Your task to perform on an android device: turn pop-ups off in chrome Image 0: 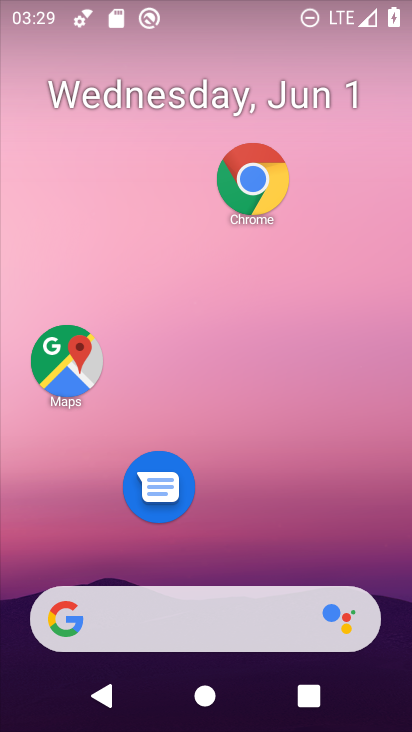
Step 0: drag from (238, 564) to (239, 204)
Your task to perform on an android device: turn pop-ups off in chrome Image 1: 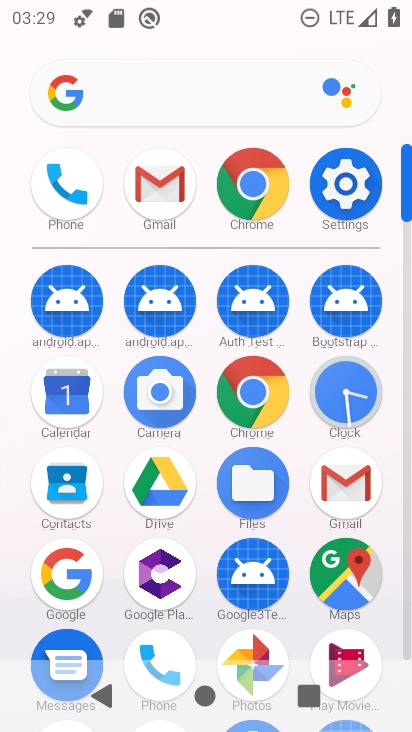
Step 1: click (245, 169)
Your task to perform on an android device: turn pop-ups off in chrome Image 2: 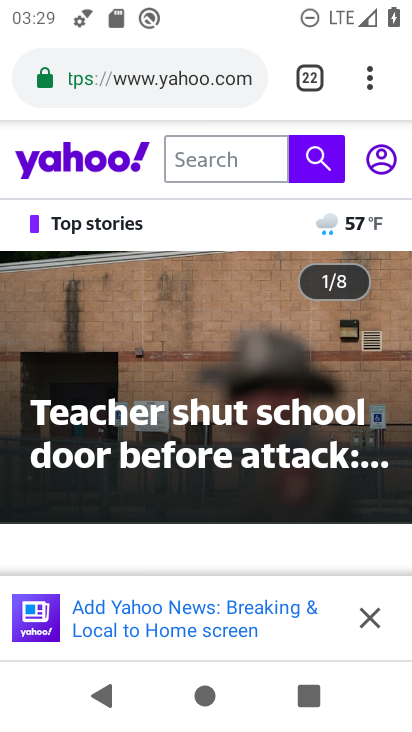
Step 2: click (376, 78)
Your task to perform on an android device: turn pop-ups off in chrome Image 3: 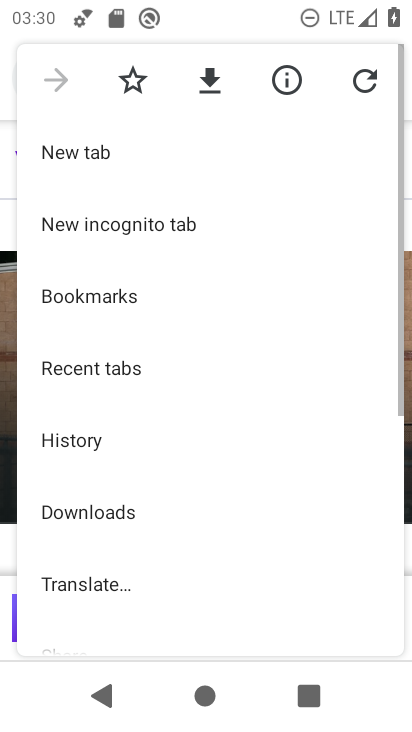
Step 3: drag from (182, 550) to (206, 207)
Your task to perform on an android device: turn pop-ups off in chrome Image 4: 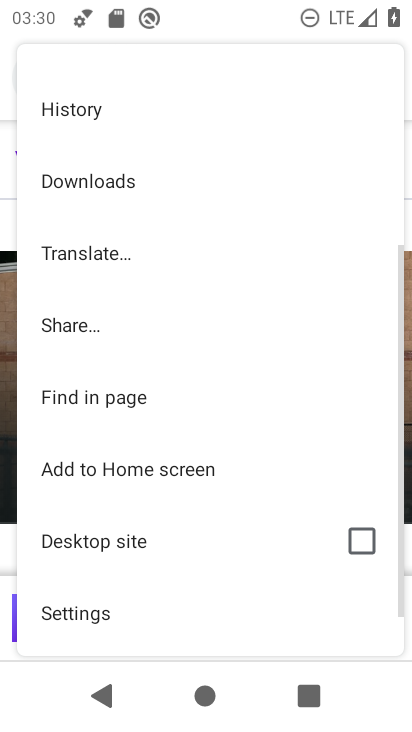
Step 4: drag from (148, 573) to (170, 310)
Your task to perform on an android device: turn pop-ups off in chrome Image 5: 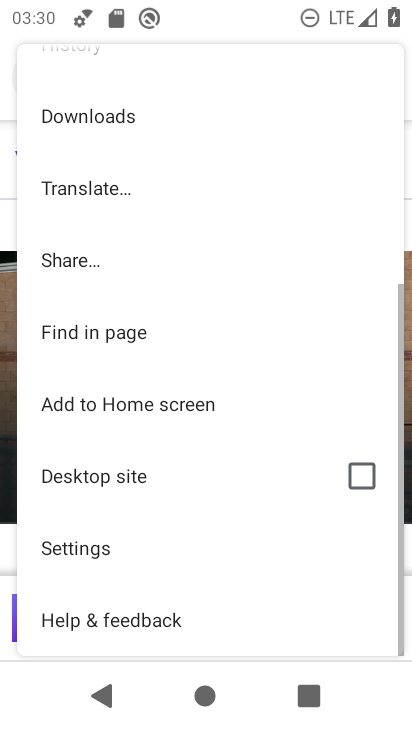
Step 5: click (106, 551)
Your task to perform on an android device: turn pop-ups off in chrome Image 6: 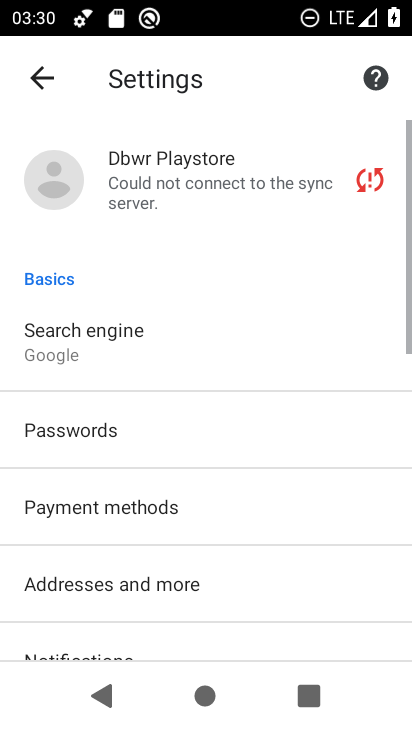
Step 6: drag from (179, 555) to (231, 233)
Your task to perform on an android device: turn pop-ups off in chrome Image 7: 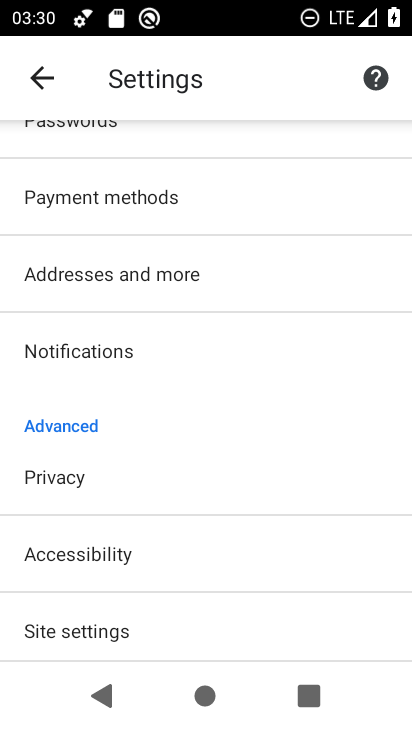
Step 7: drag from (167, 543) to (238, 191)
Your task to perform on an android device: turn pop-ups off in chrome Image 8: 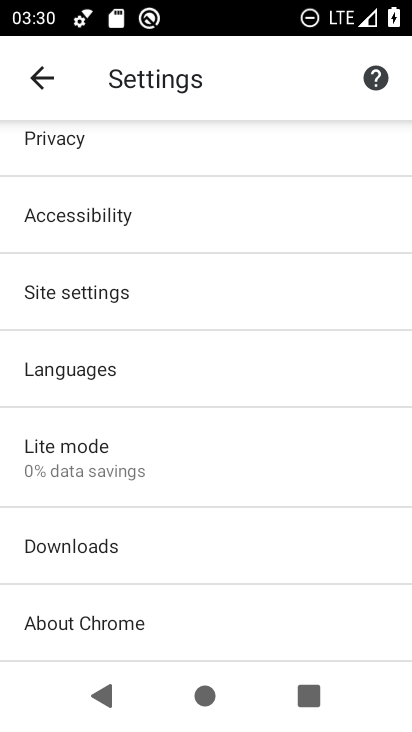
Step 8: drag from (145, 548) to (196, 302)
Your task to perform on an android device: turn pop-ups off in chrome Image 9: 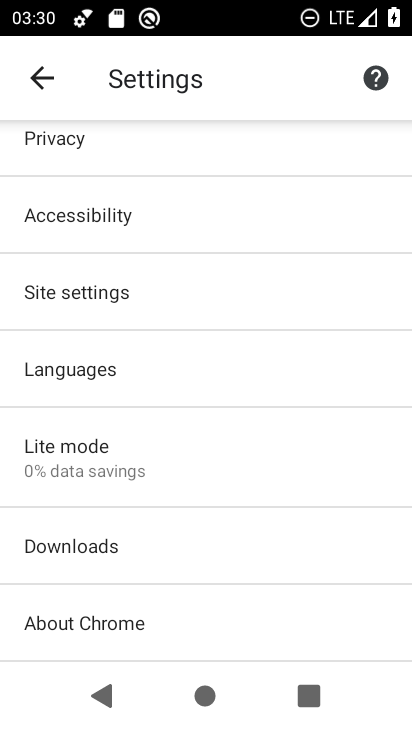
Step 9: click (107, 286)
Your task to perform on an android device: turn pop-ups off in chrome Image 10: 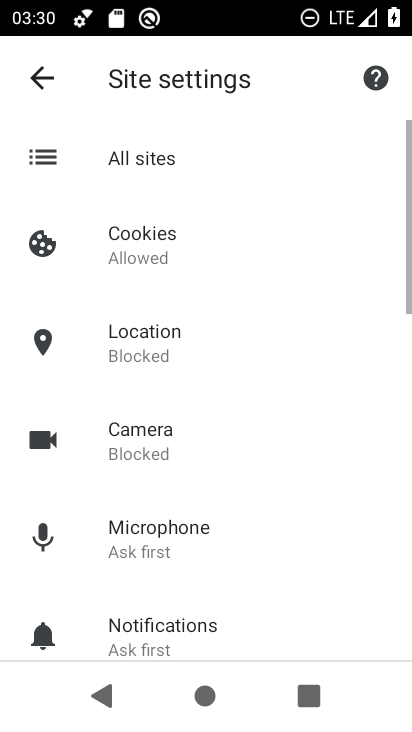
Step 10: drag from (202, 562) to (245, 281)
Your task to perform on an android device: turn pop-ups off in chrome Image 11: 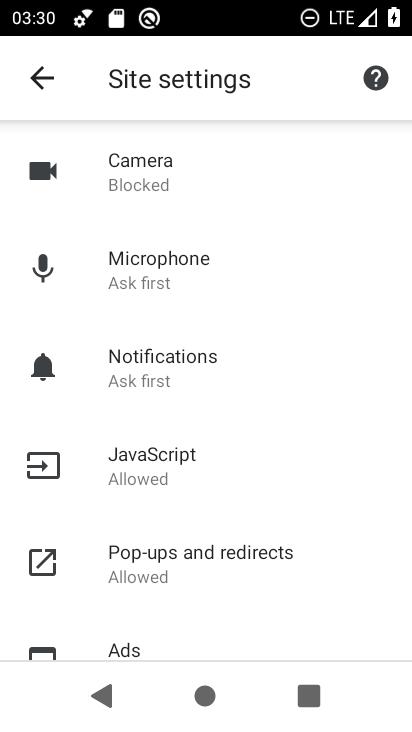
Step 11: click (149, 548)
Your task to perform on an android device: turn pop-ups off in chrome Image 12: 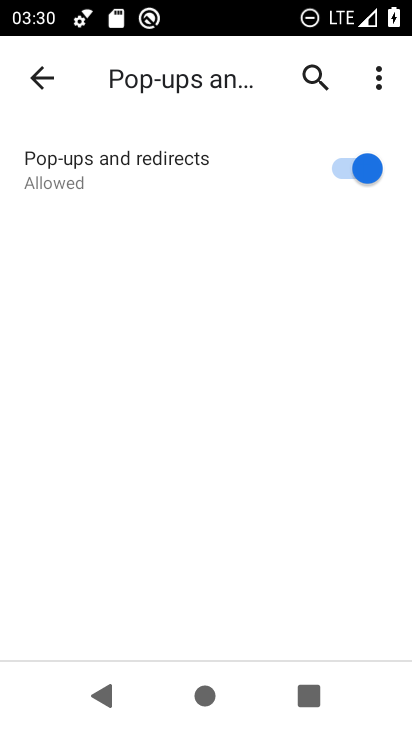
Step 12: click (331, 157)
Your task to perform on an android device: turn pop-ups off in chrome Image 13: 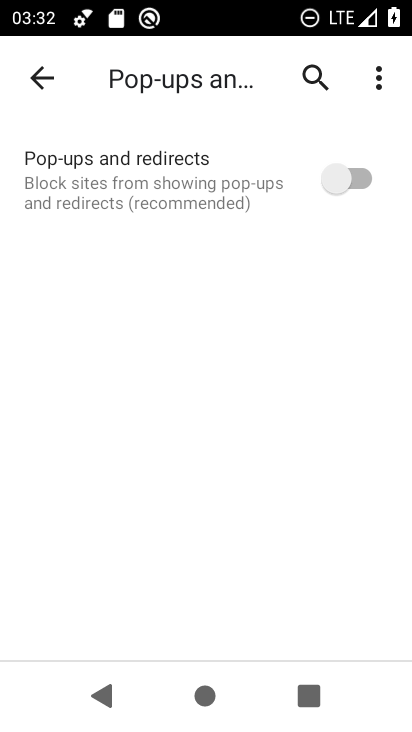
Step 13: task complete